Your task to perform on an android device: delete the emails in spam in the gmail app Image 0: 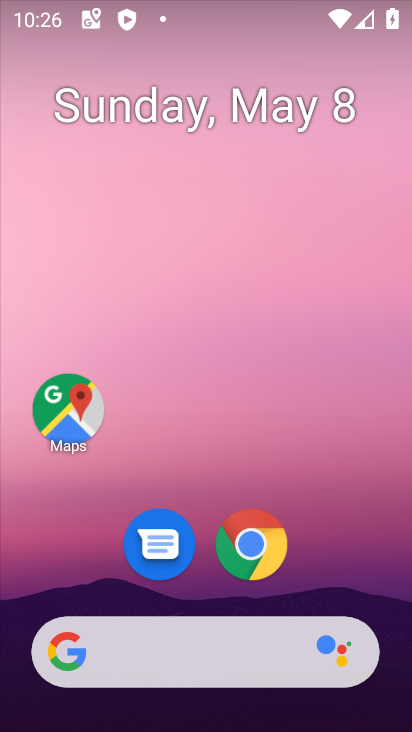
Step 0: drag from (353, 556) to (321, 219)
Your task to perform on an android device: delete the emails in spam in the gmail app Image 1: 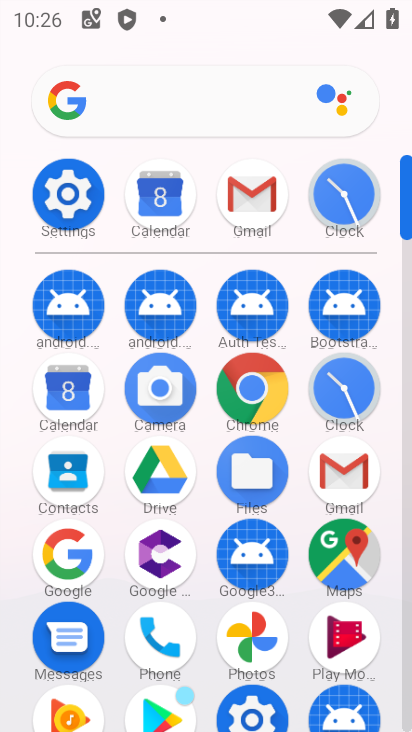
Step 1: click (273, 212)
Your task to perform on an android device: delete the emails in spam in the gmail app Image 2: 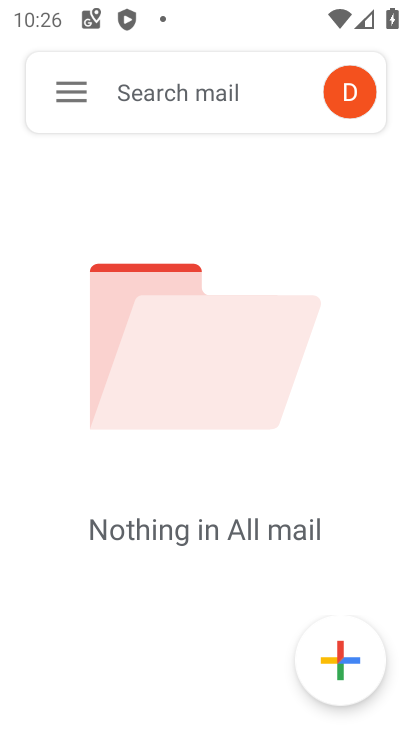
Step 2: click (59, 81)
Your task to perform on an android device: delete the emails in spam in the gmail app Image 3: 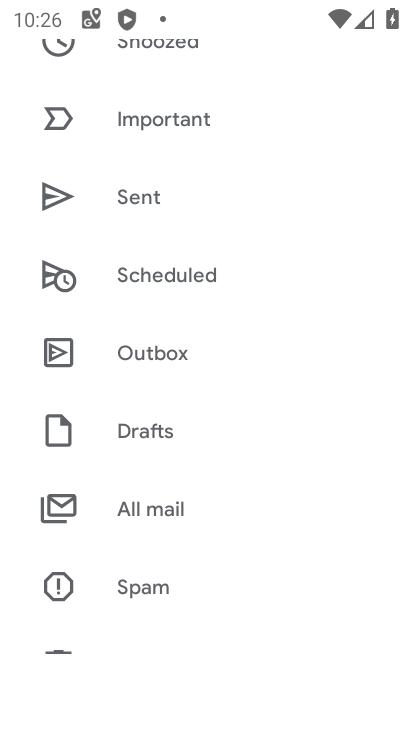
Step 3: drag from (178, 418) to (179, 489)
Your task to perform on an android device: delete the emails in spam in the gmail app Image 4: 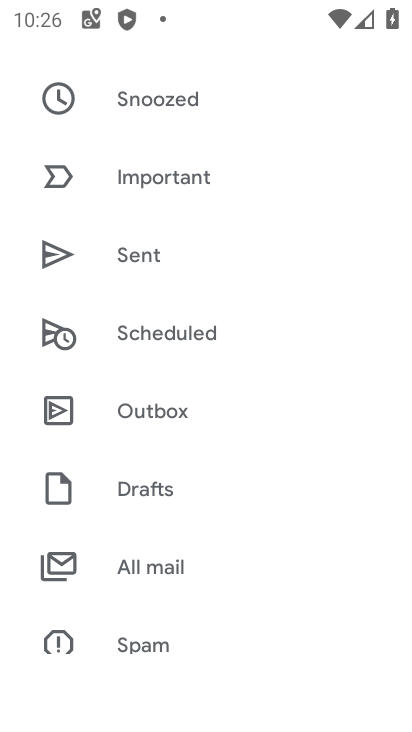
Step 4: click (203, 542)
Your task to perform on an android device: delete the emails in spam in the gmail app Image 5: 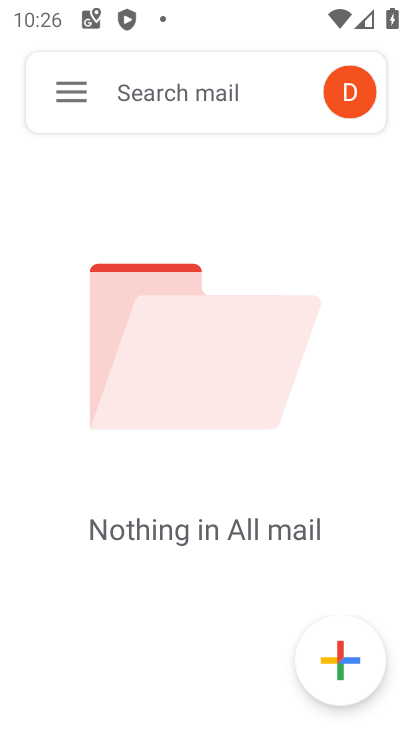
Step 5: task complete